Your task to perform on an android device: Show me popular games on the Play Store Image 0: 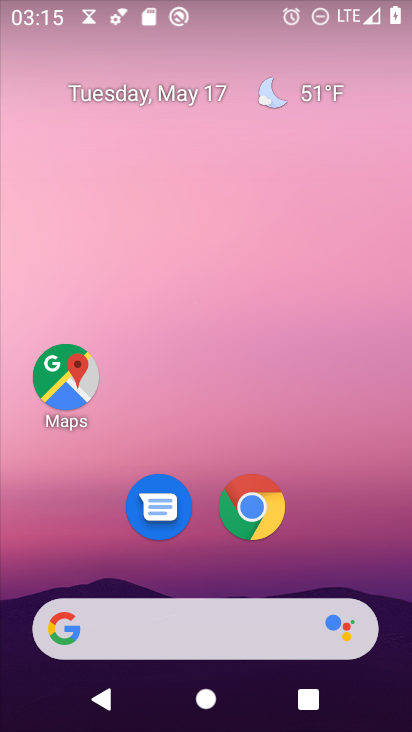
Step 0: drag from (190, 565) to (182, 80)
Your task to perform on an android device: Show me popular games on the Play Store Image 1: 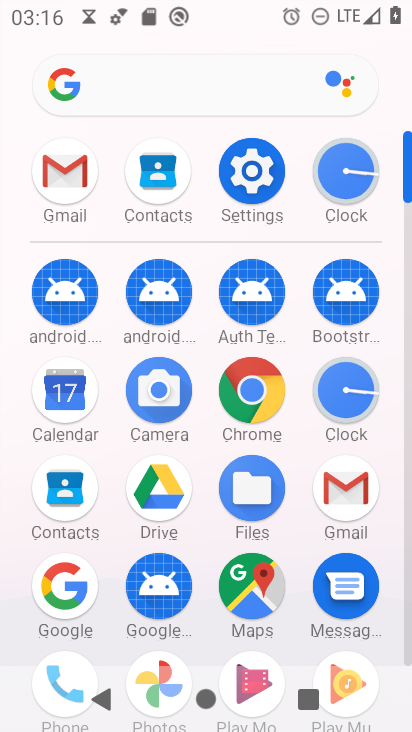
Step 1: drag from (291, 617) to (265, 410)
Your task to perform on an android device: Show me popular games on the Play Store Image 2: 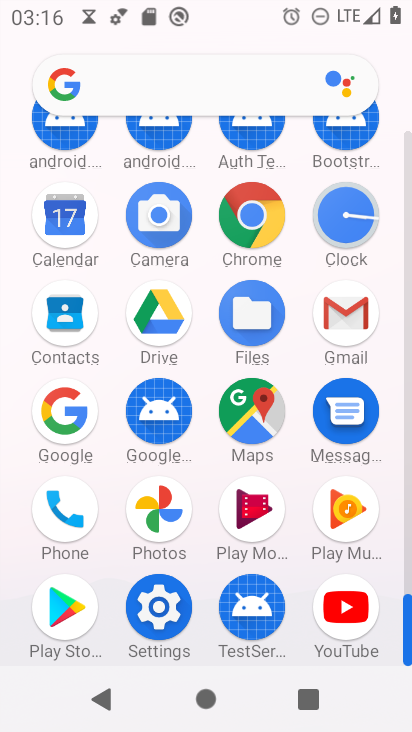
Step 2: click (54, 596)
Your task to perform on an android device: Show me popular games on the Play Store Image 3: 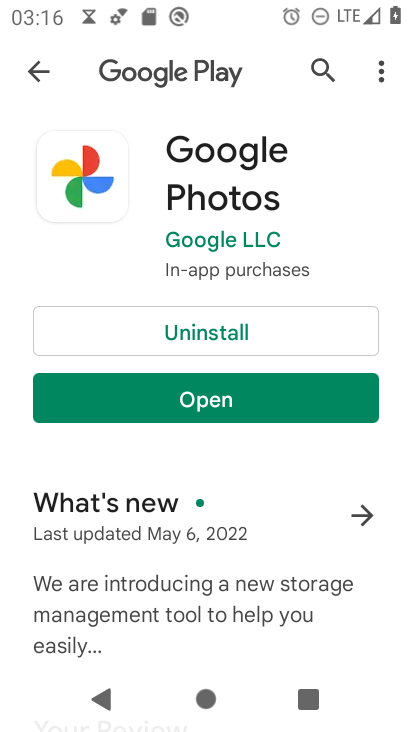
Step 3: click (38, 76)
Your task to perform on an android device: Show me popular games on the Play Store Image 4: 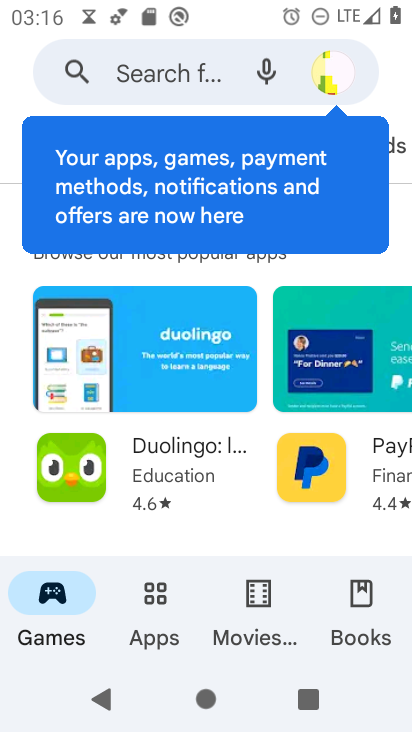
Step 4: click (63, 605)
Your task to perform on an android device: Show me popular games on the Play Store Image 5: 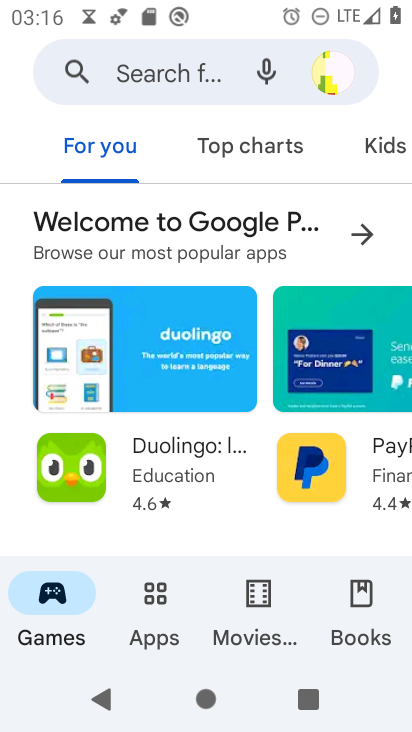
Step 5: click (230, 146)
Your task to perform on an android device: Show me popular games on the Play Store Image 6: 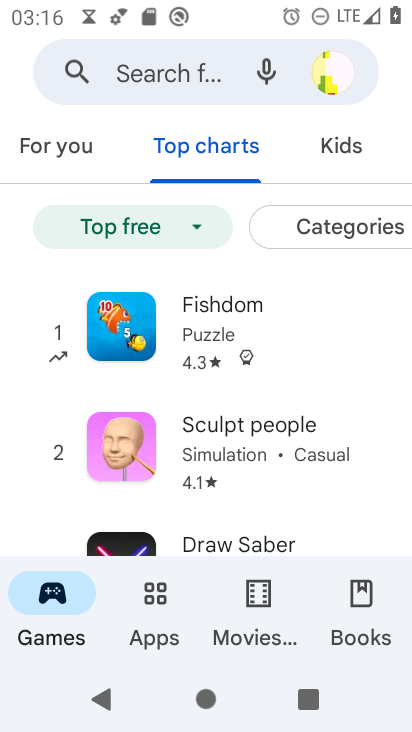
Step 6: task complete